Your task to perform on an android device: Go to Google maps Image 0: 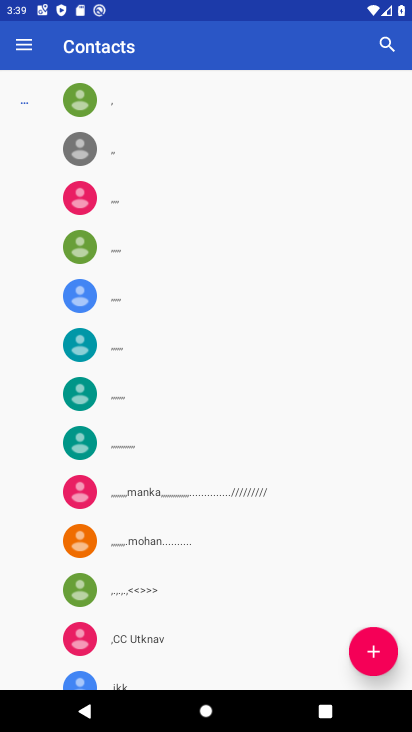
Step 0: press home button
Your task to perform on an android device: Go to Google maps Image 1: 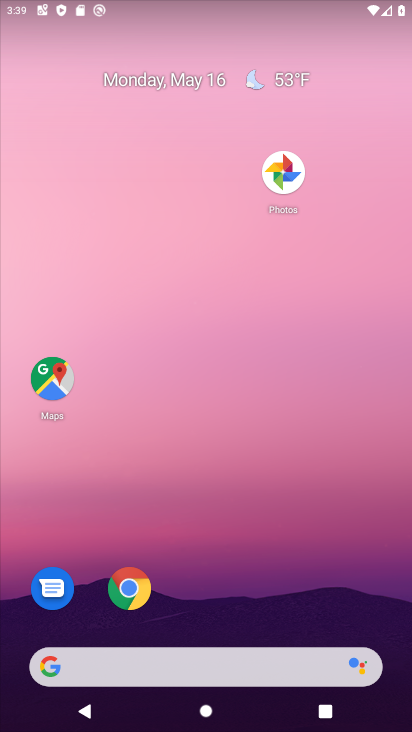
Step 1: click (58, 373)
Your task to perform on an android device: Go to Google maps Image 2: 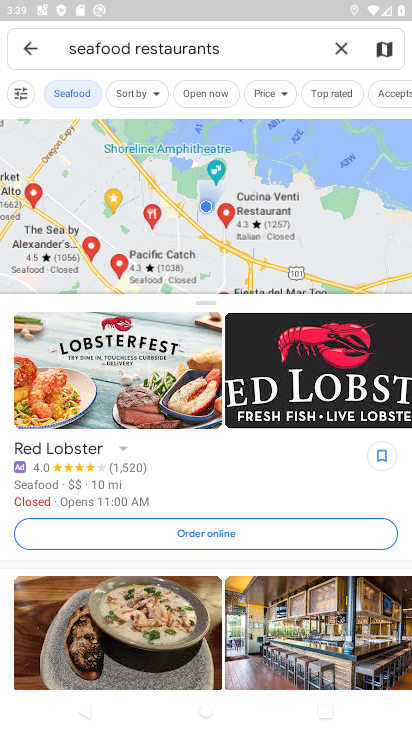
Step 2: task complete